Your task to perform on an android device: Check the news Image 0: 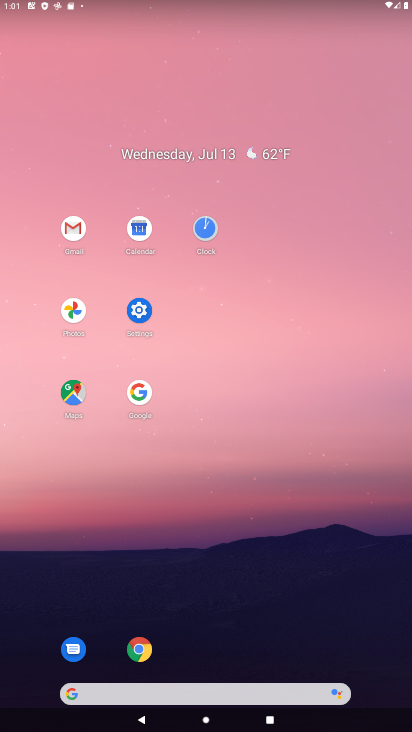
Step 0: click (140, 654)
Your task to perform on an android device: Check the news Image 1: 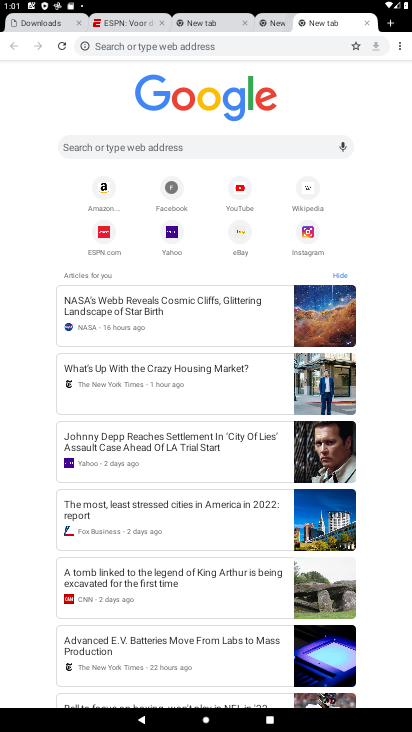
Step 1: click (217, 146)
Your task to perform on an android device: Check the news Image 2: 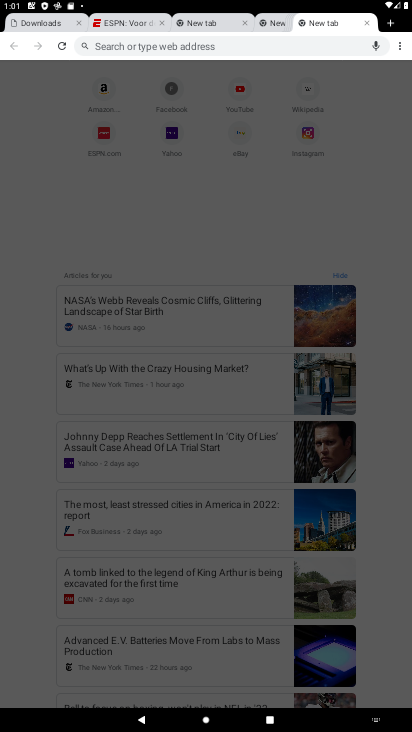
Step 2: type "news"
Your task to perform on an android device: Check the news Image 3: 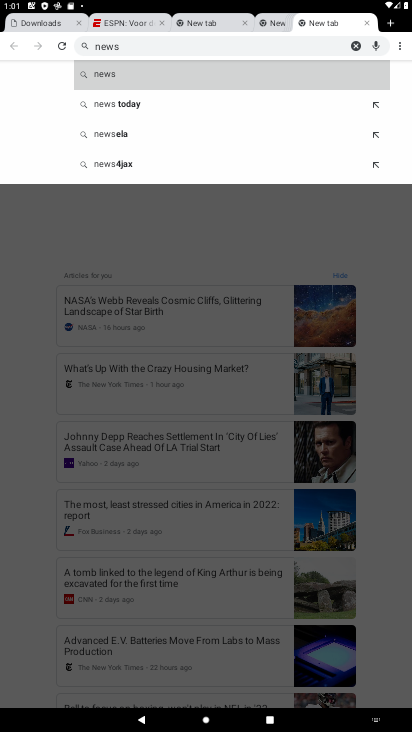
Step 3: click (139, 103)
Your task to perform on an android device: Check the news Image 4: 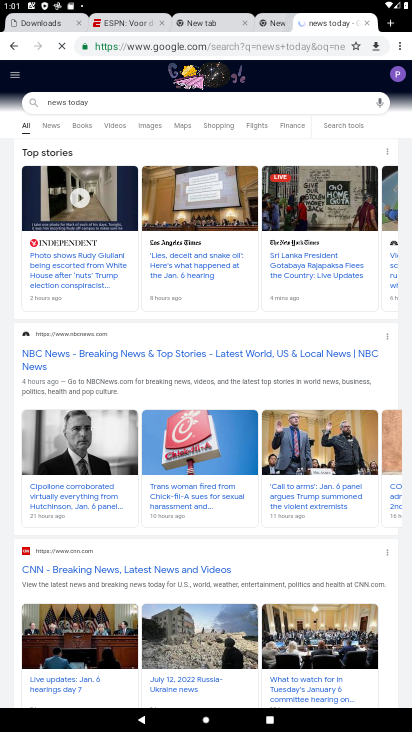
Step 4: task complete